Your task to perform on an android device: see sites visited before in the chrome app Image 0: 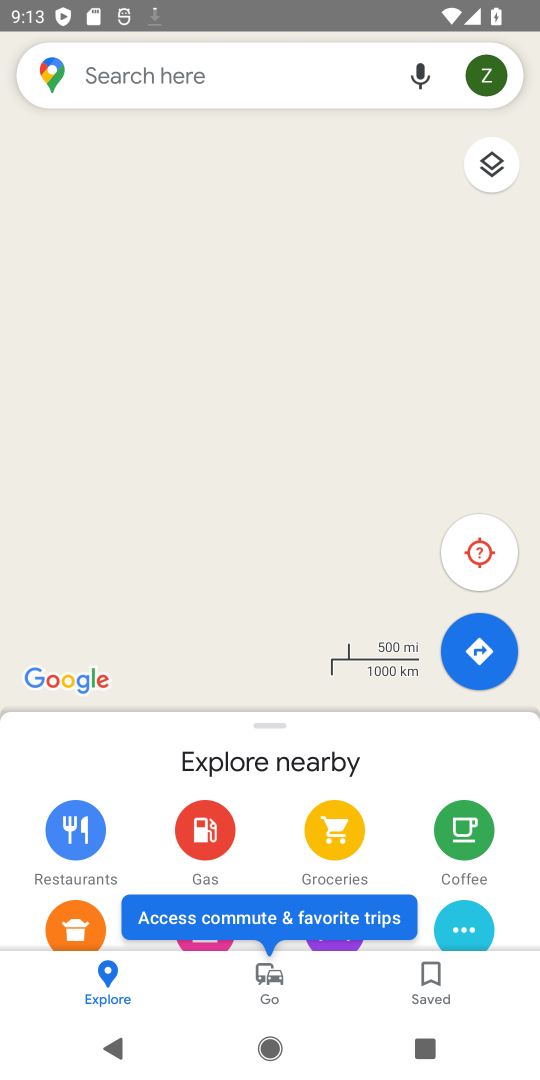
Step 0: press home button
Your task to perform on an android device: see sites visited before in the chrome app Image 1: 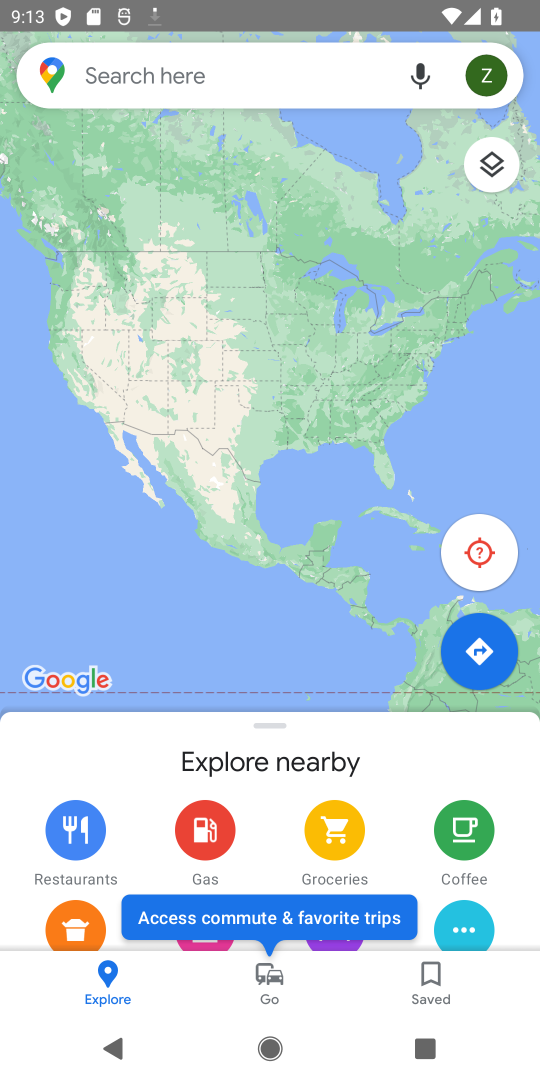
Step 1: press home button
Your task to perform on an android device: see sites visited before in the chrome app Image 2: 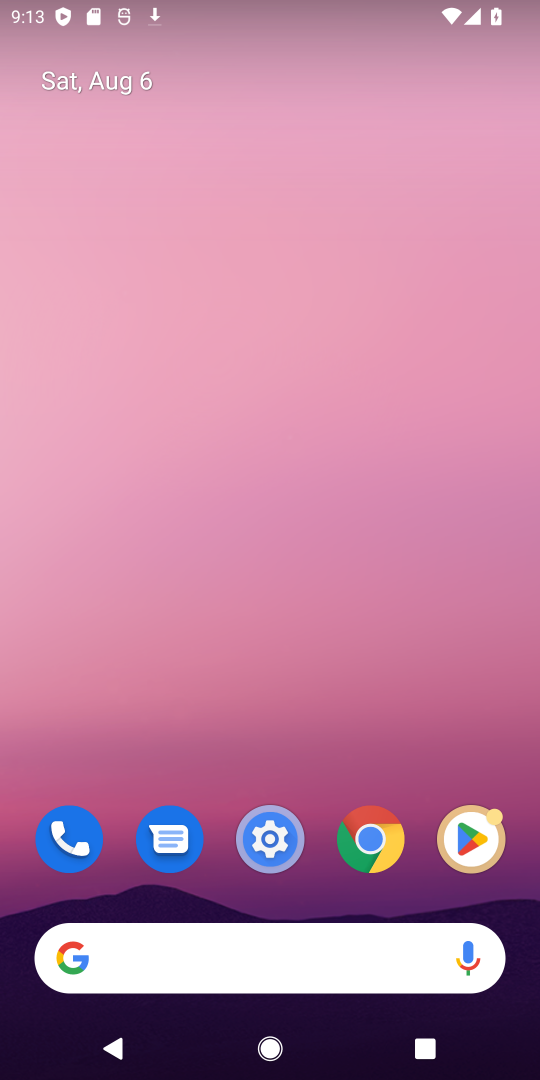
Step 2: drag from (307, 796) to (295, 103)
Your task to perform on an android device: see sites visited before in the chrome app Image 3: 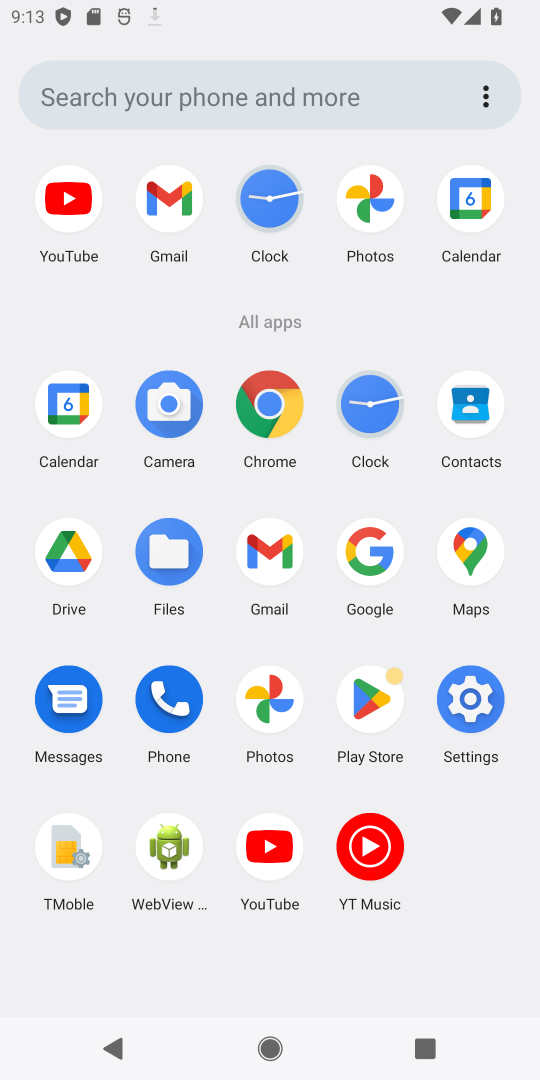
Step 3: click (261, 399)
Your task to perform on an android device: see sites visited before in the chrome app Image 4: 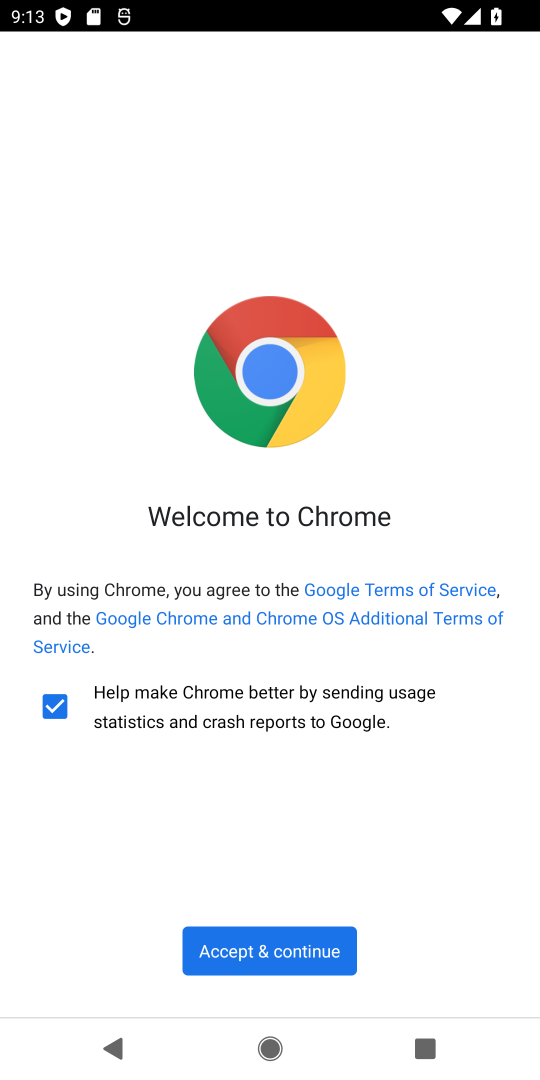
Step 4: click (270, 943)
Your task to perform on an android device: see sites visited before in the chrome app Image 5: 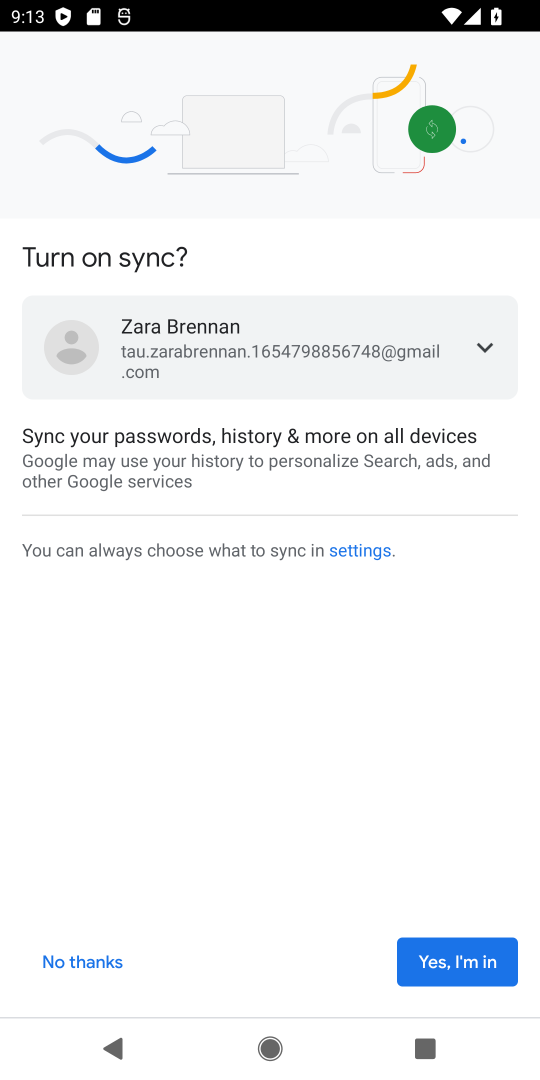
Step 5: click (437, 948)
Your task to perform on an android device: see sites visited before in the chrome app Image 6: 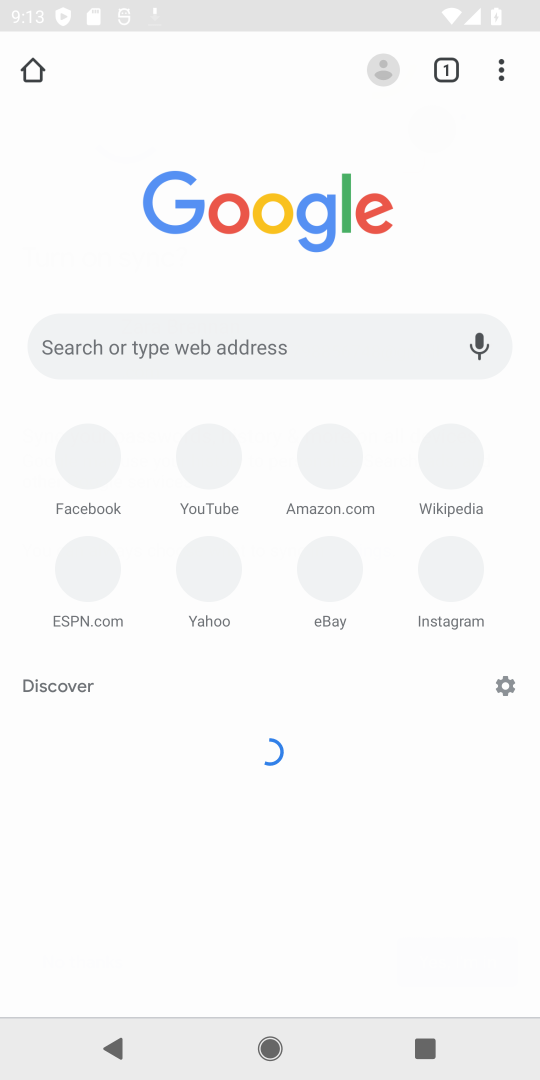
Step 6: click (473, 959)
Your task to perform on an android device: see sites visited before in the chrome app Image 7: 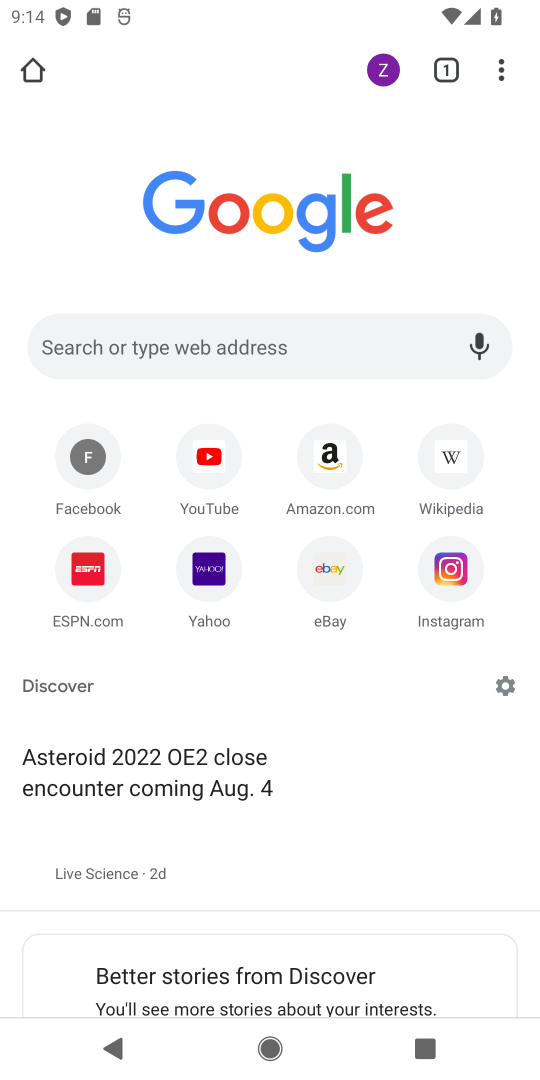
Step 7: click (502, 69)
Your task to perform on an android device: see sites visited before in the chrome app Image 8: 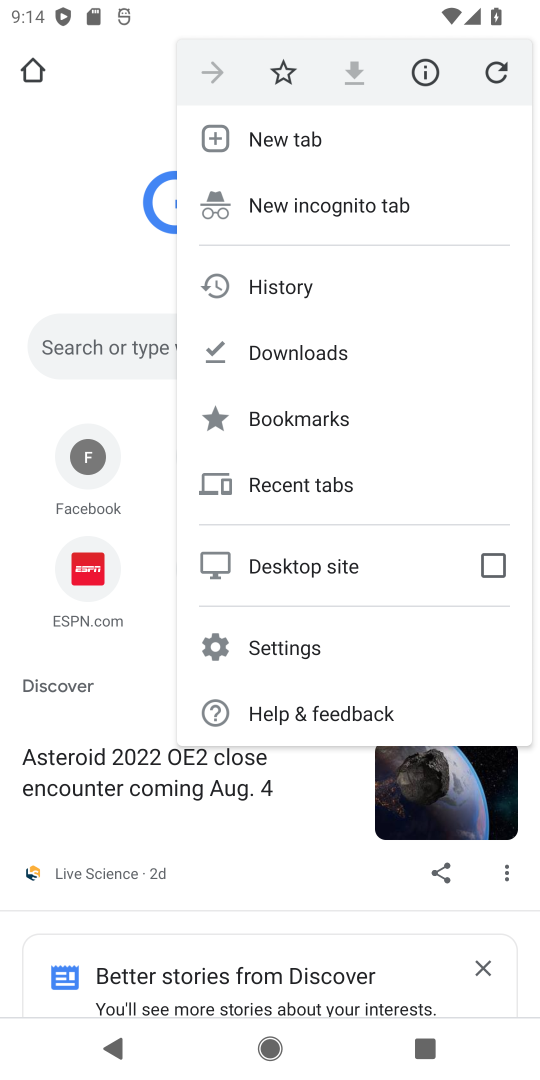
Step 8: click (294, 287)
Your task to perform on an android device: see sites visited before in the chrome app Image 9: 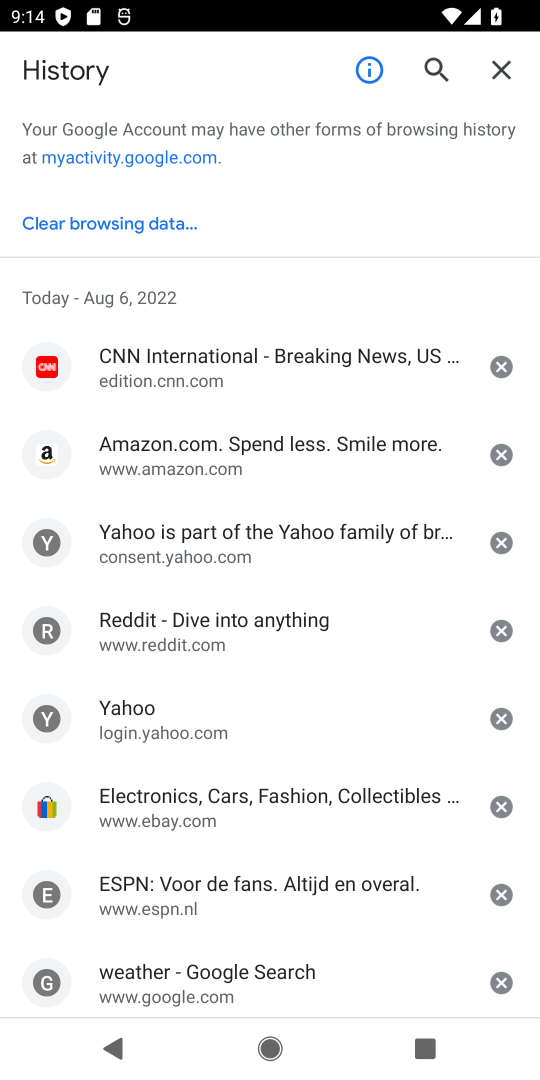
Step 9: task complete